Your task to perform on an android device: open a bookmark in the chrome app Image 0: 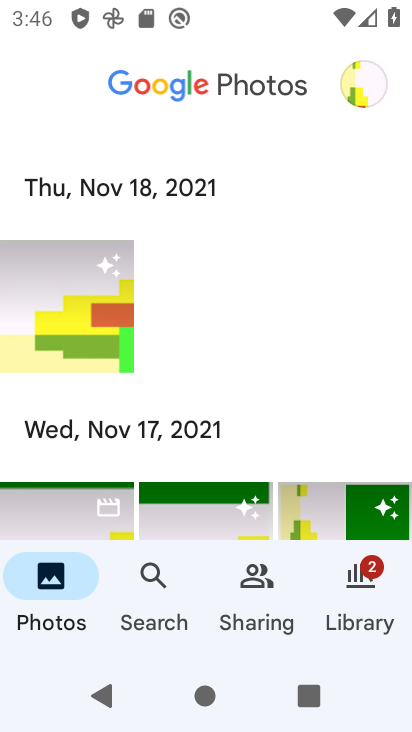
Step 0: press home button
Your task to perform on an android device: open a bookmark in the chrome app Image 1: 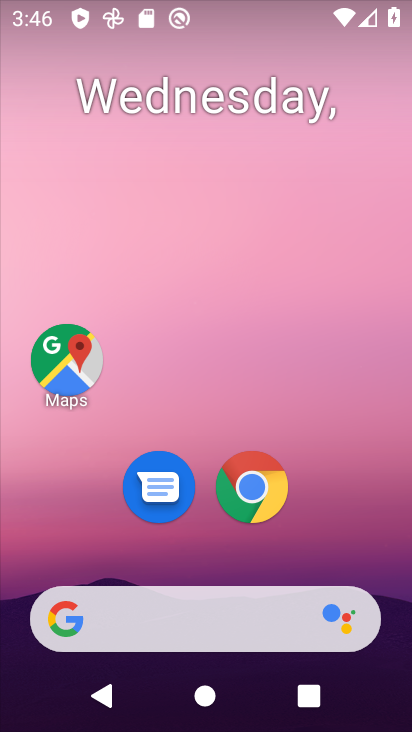
Step 1: drag from (343, 528) to (348, 216)
Your task to perform on an android device: open a bookmark in the chrome app Image 2: 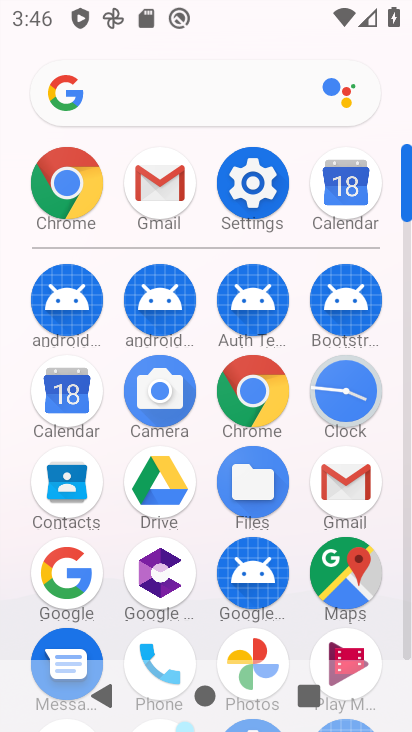
Step 2: click (270, 404)
Your task to perform on an android device: open a bookmark in the chrome app Image 3: 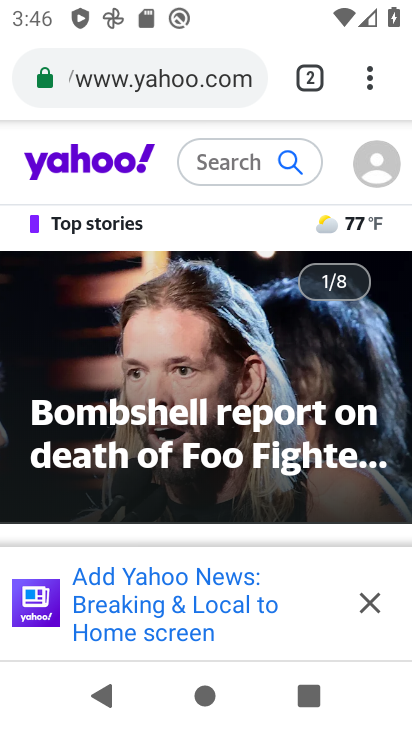
Step 3: click (377, 91)
Your task to perform on an android device: open a bookmark in the chrome app Image 4: 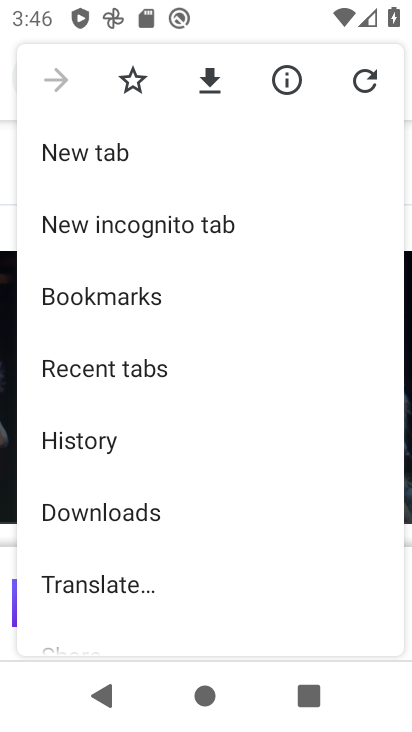
Step 4: drag from (277, 533) to (294, 410)
Your task to perform on an android device: open a bookmark in the chrome app Image 5: 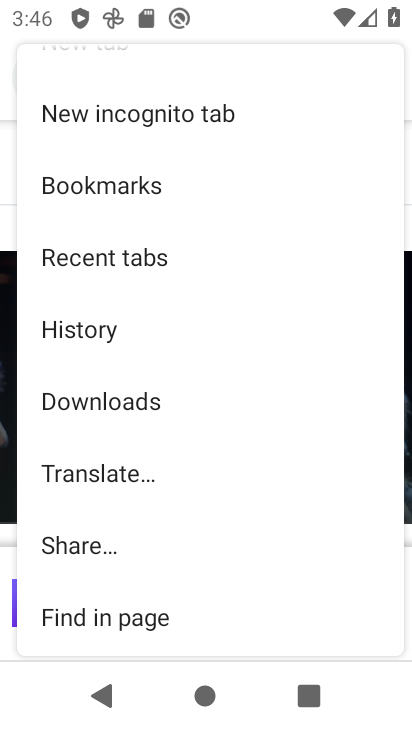
Step 5: drag from (314, 573) to (325, 385)
Your task to perform on an android device: open a bookmark in the chrome app Image 6: 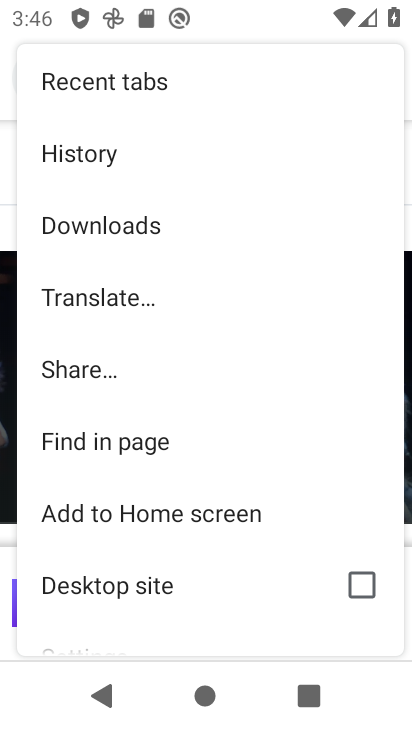
Step 6: drag from (312, 602) to (289, 425)
Your task to perform on an android device: open a bookmark in the chrome app Image 7: 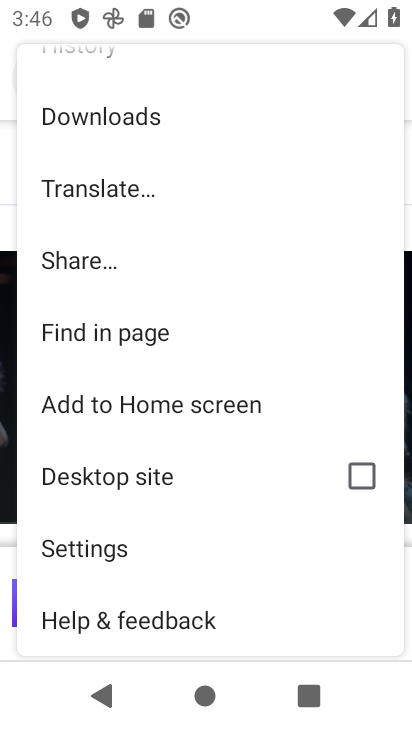
Step 7: drag from (279, 606) to (284, 453)
Your task to perform on an android device: open a bookmark in the chrome app Image 8: 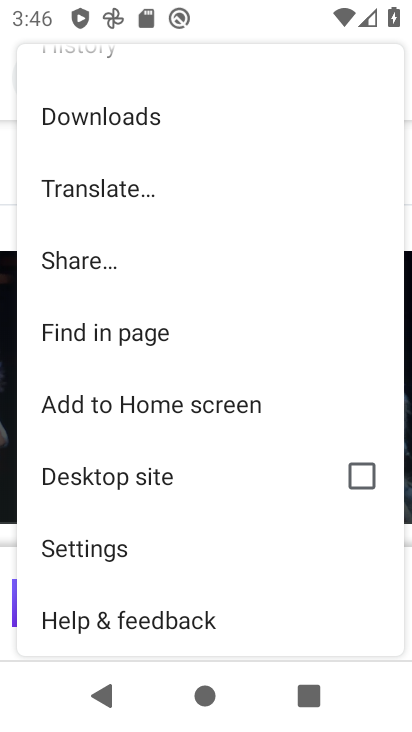
Step 8: drag from (268, 346) to (265, 453)
Your task to perform on an android device: open a bookmark in the chrome app Image 9: 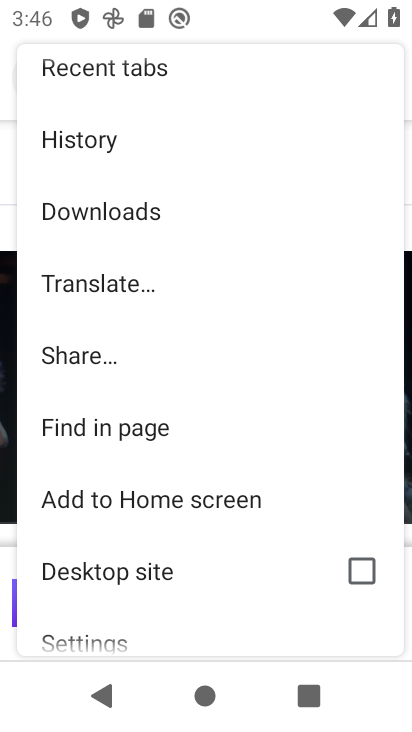
Step 9: drag from (260, 289) to (258, 407)
Your task to perform on an android device: open a bookmark in the chrome app Image 10: 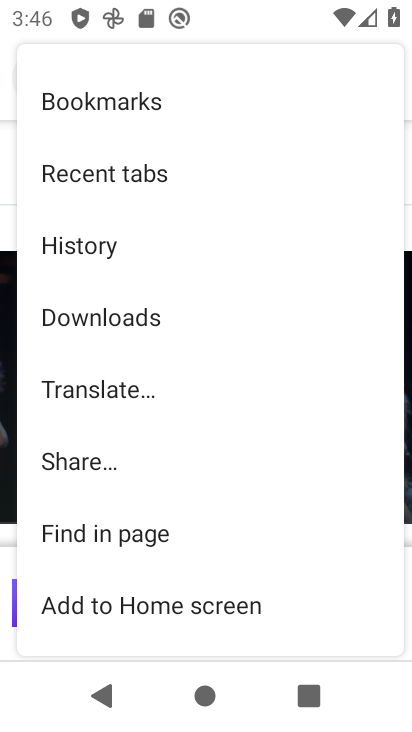
Step 10: drag from (239, 254) to (240, 364)
Your task to perform on an android device: open a bookmark in the chrome app Image 11: 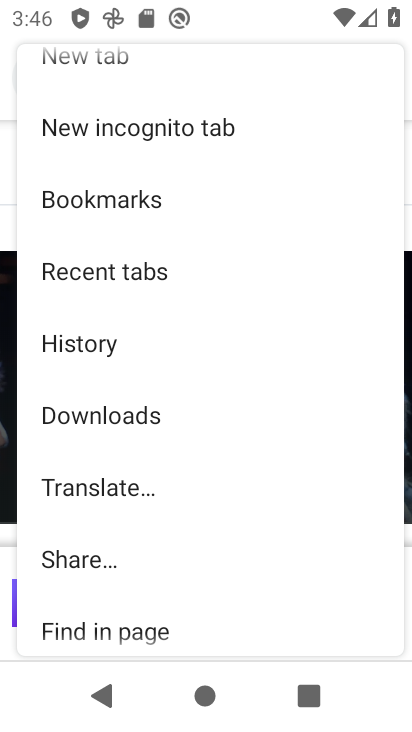
Step 11: drag from (239, 240) to (234, 355)
Your task to perform on an android device: open a bookmark in the chrome app Image 12: 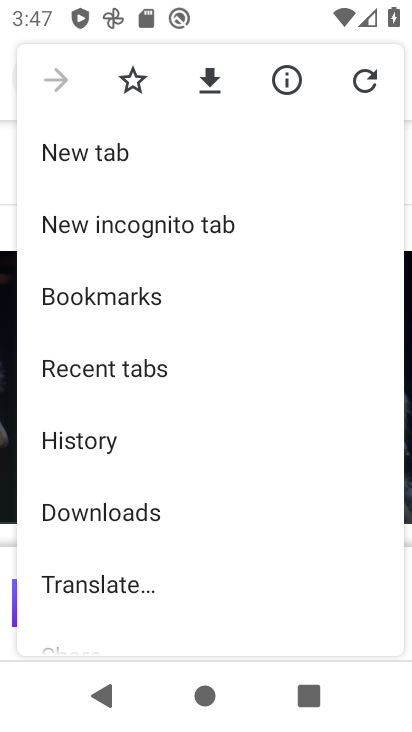
Step 12: drag from (264, 220) to (269, 321)
Your task to perform on an android device: open a bookmark in the chrome app Image 13: 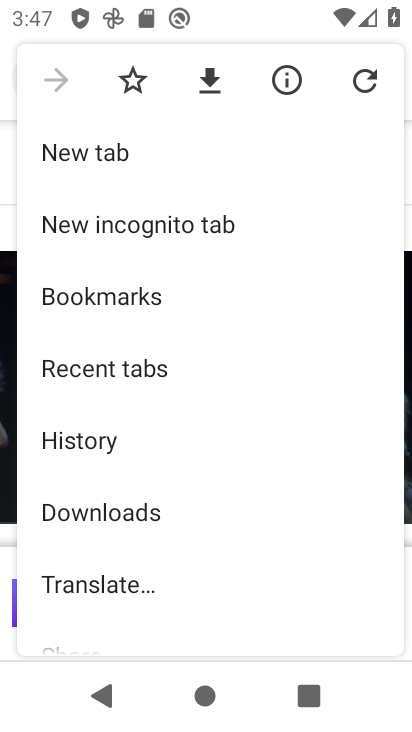
Step 13: click (166, 300)
Your task to perform on an android device: open a bookmark in the chrome app Image 14: 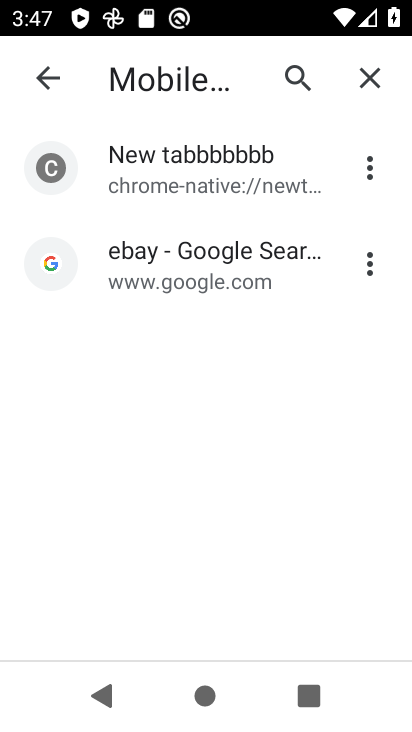
Step 14: click (228, 252)
Your task to perform on an android device: open a bookmark in the chrome app Image 15: 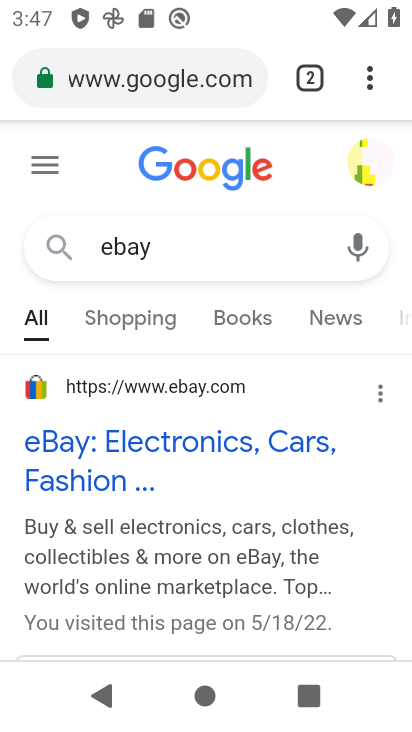
Step 15: task complete